Your task to perform on an android device: Open accessibility settings Image 0: 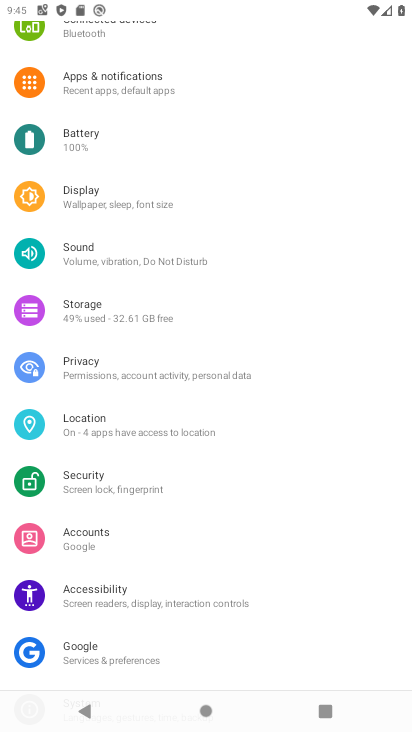
Step 0: press home button
Your task to perform on an android device: Open accessibility settings Image 1: 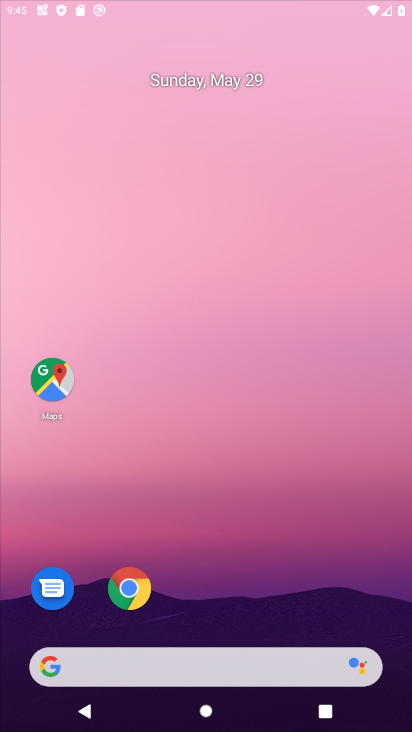
Step 1: drag from (256, 315) to (254, 198)
Your task to perform on an android device: Open accessibility settings Image 2: 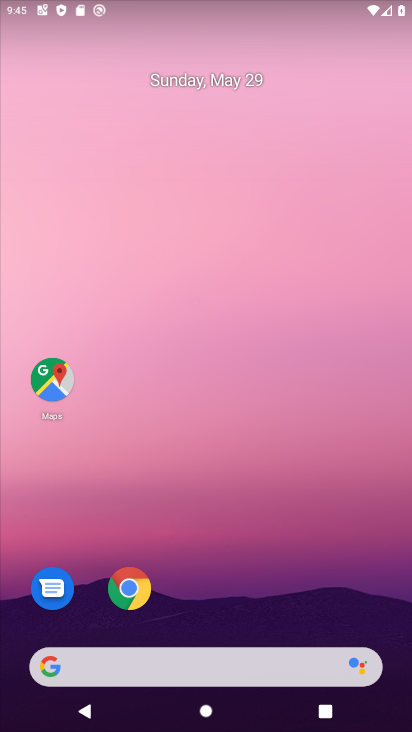
Step 2: drag from (246, 577) to (261, 114)
Your task to perform on an android device: Open accessibility settings Image 3: 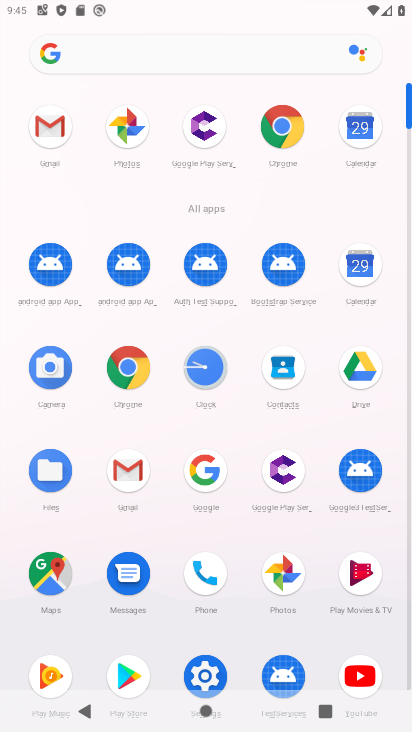
Step 3: drag from (245, 223) to (243, 74)
Your task to perform on an android device: Open accessibility settings Image 4: 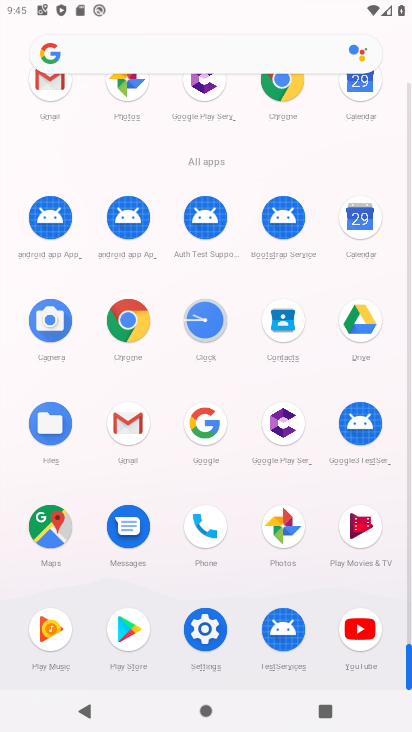
Step 4: click (208, 643)
Your task to perform on an android device: Open accessibility settings Image 5: 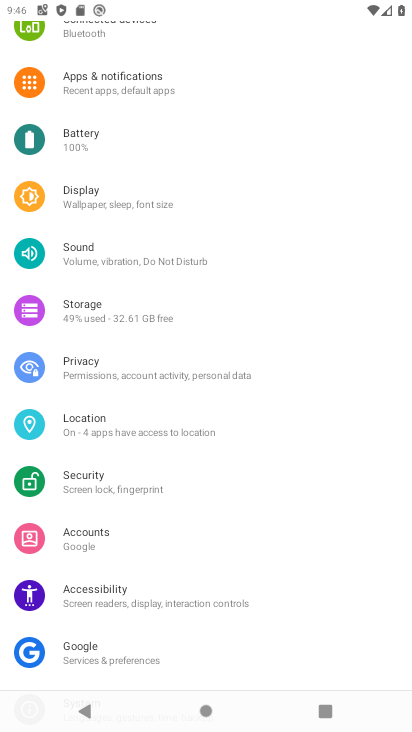
Step 5: click (172, 589)
Your task to perform on an android device: Open accessibility settings Image 6: 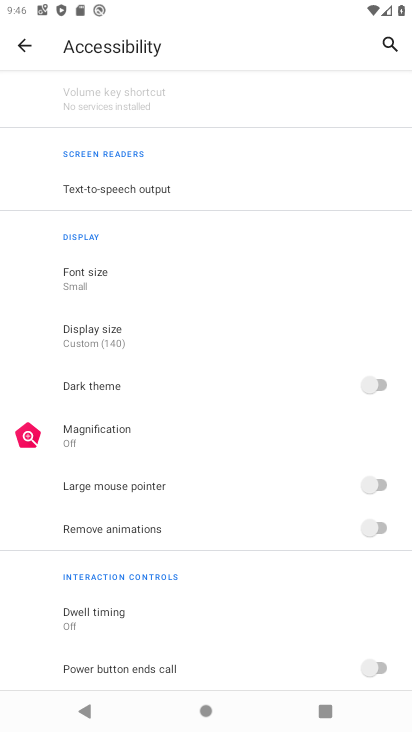
Step 6: task complete